Your task to perform on an android device: turn on wifi Image 0: 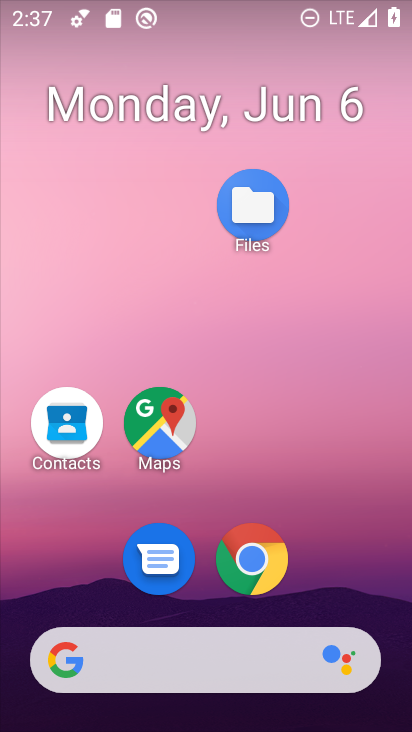
Step 0: drag from (225, 609) to (328, 110)
Your task to perform on an android device: turn on wifi Image 1: 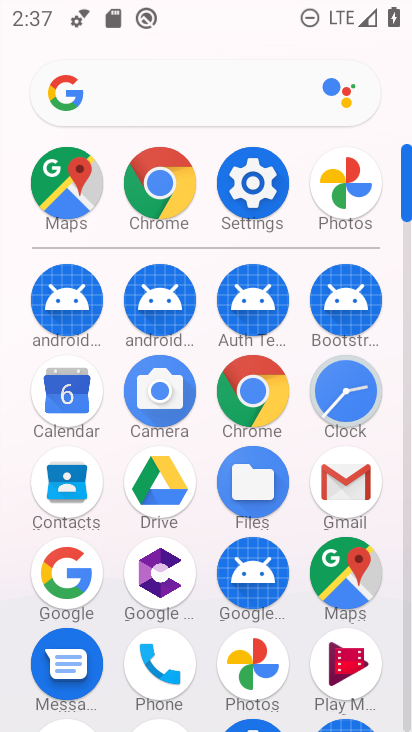
Step 1: click (250, 204)
Your task to perform on an android device: turn on wifi Image 2: 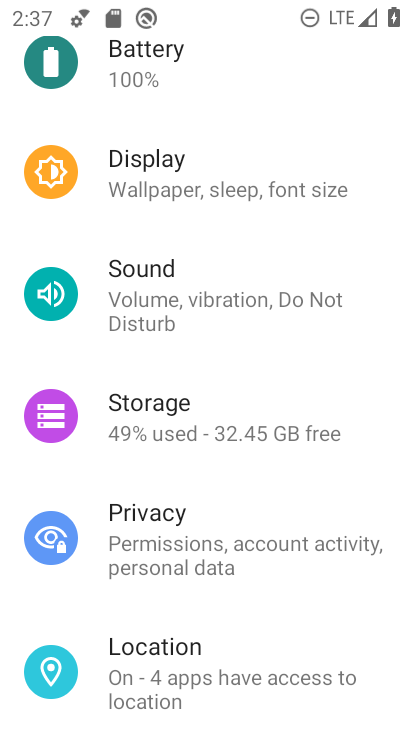
Step 2: drag from (249, 216) to (213, 580)
Your task to perform on an android device: turn on wifi Image 3: 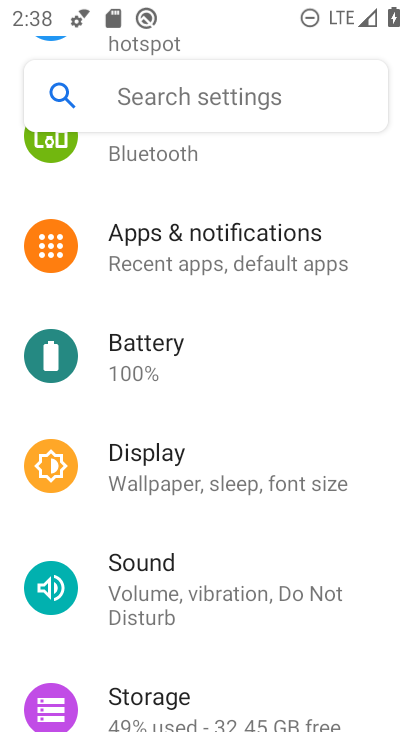
Step 3: drag from (216, 364) to (209, 678)
Your task to perform on an android device: turn on wifi Image 4: 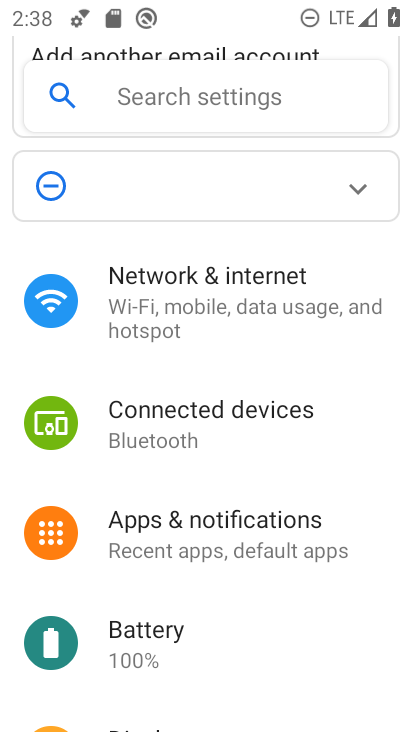
Step 4: click (223, 328)
Your task to perform on an android device: turn on wifi Image 5: 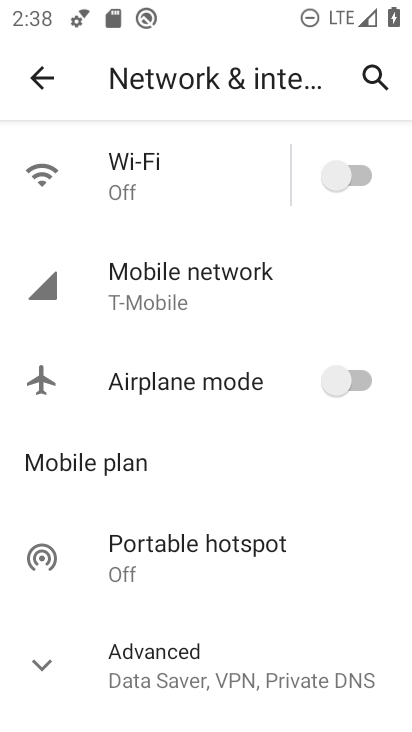
Step 5: click (376, 175)
Your task to perform on an android device: turn on wifi Image 6: 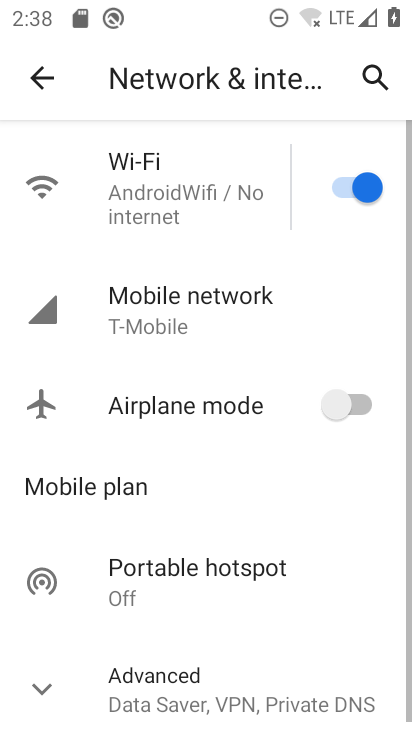
Step 6: task complete